Your task to perform on an android device: Open Google Maps Image 0: 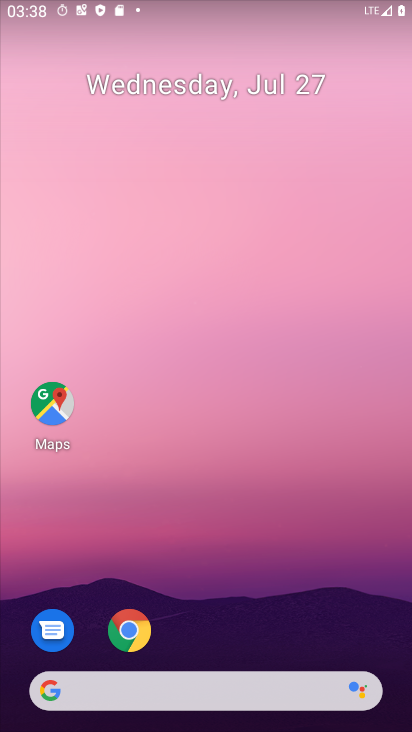
Step 0: drag from (283, 640) to (245, 27)
Your task to perform on an android device: Open Google Maps Image 1: 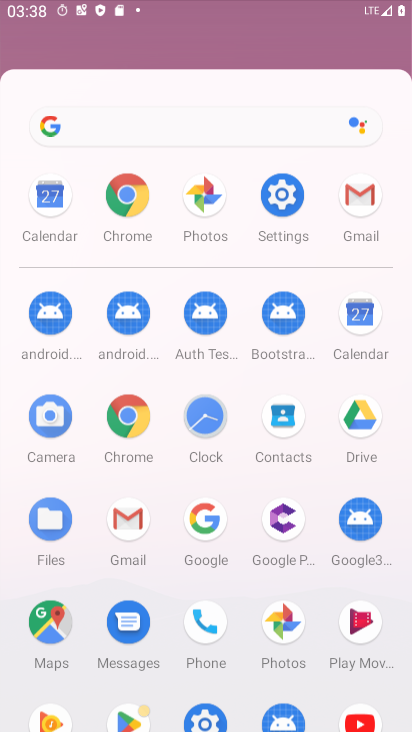
Step 1: drag from (244, 475) to (200, 93)
Your task to perform on an android device: Open Google Maps Image 2: 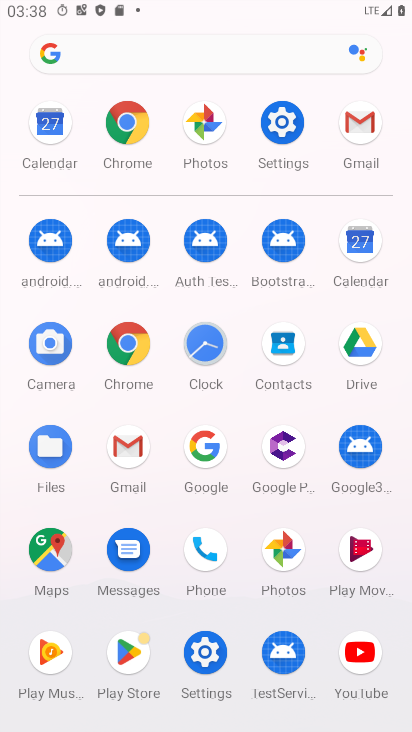
Step 2: drag from (231, 460) to (220, 127)
Your task to perform on an android device: Open Google Maps Image 3: 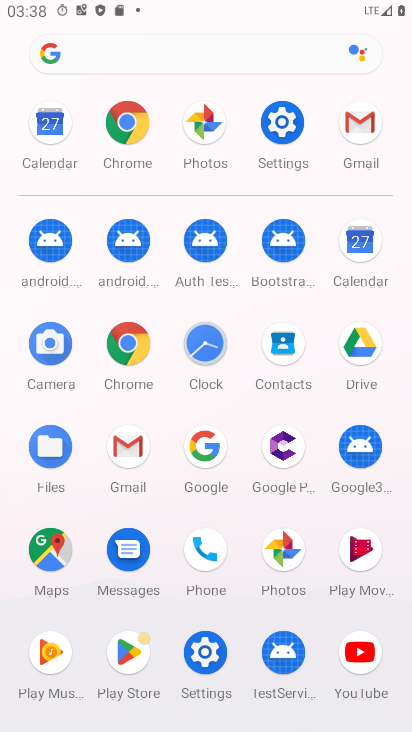
Step 3: click (202, 451)
Your task to perform on an android device: Open Google Maps Image 4: 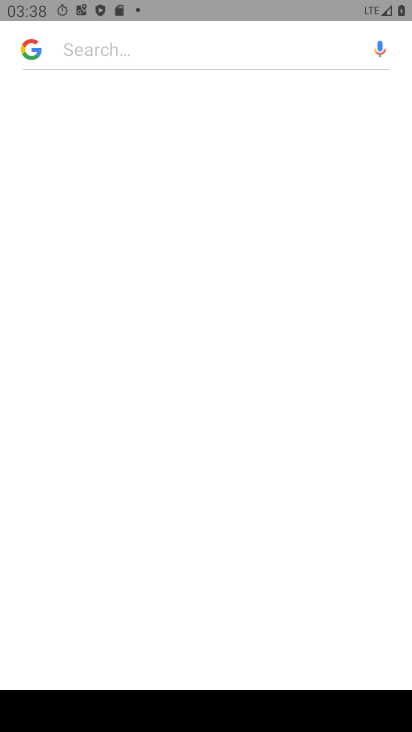
Step 4: click (43, 547)
Your task to perform on an android device: Open Google Maps Image 5: 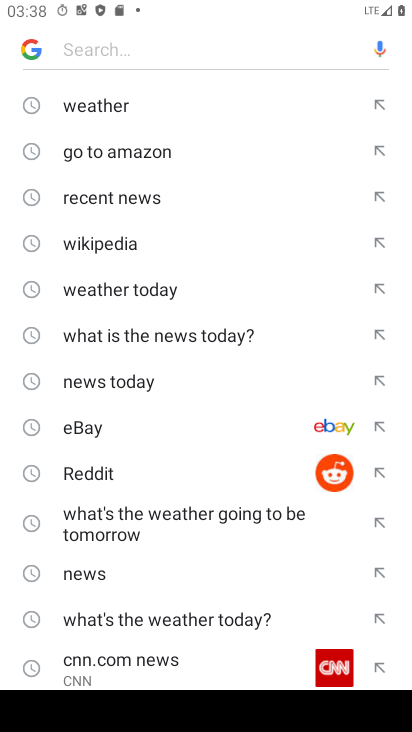
Step 5: press back button
Your task to perform on an android device: Open Google Maps Image 6: 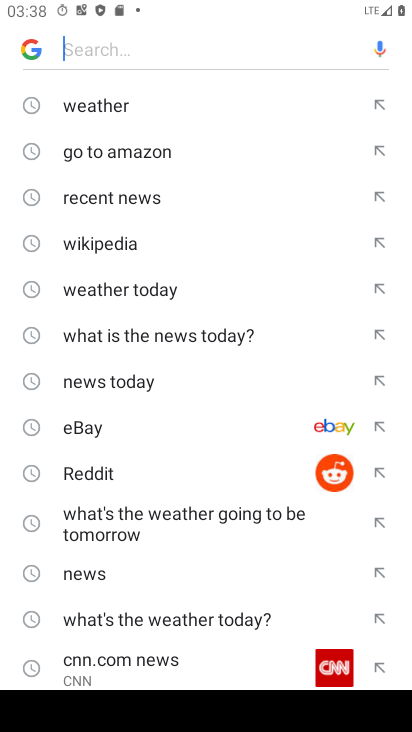
Step 6: press back button
Your task to perform on an android device: Open Google Maps Image 7: 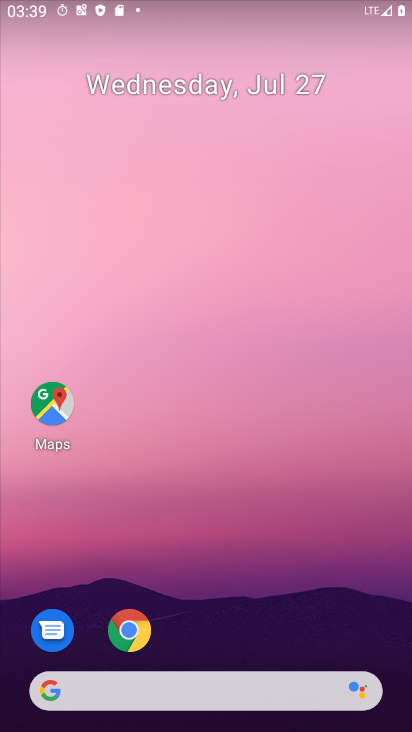
Step 7: drag from (247, 614) to (240, 11)
Your task to perform on an android device: Open Google Maps Image 8: 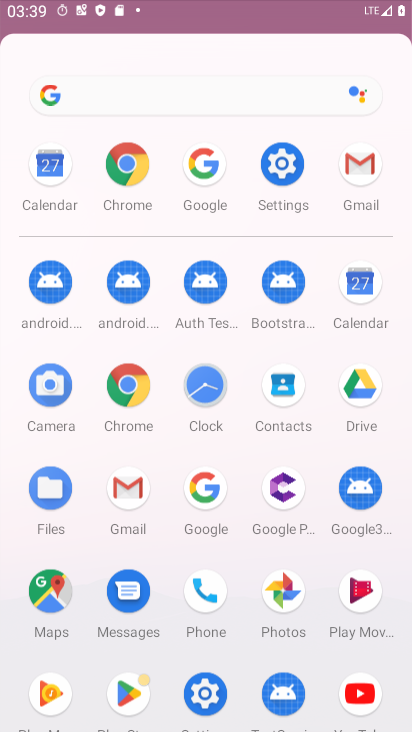
Step 8: drag from (275, 353) to (221, 64)
Your task to perform on an android device: Open Google Maps Image 9: 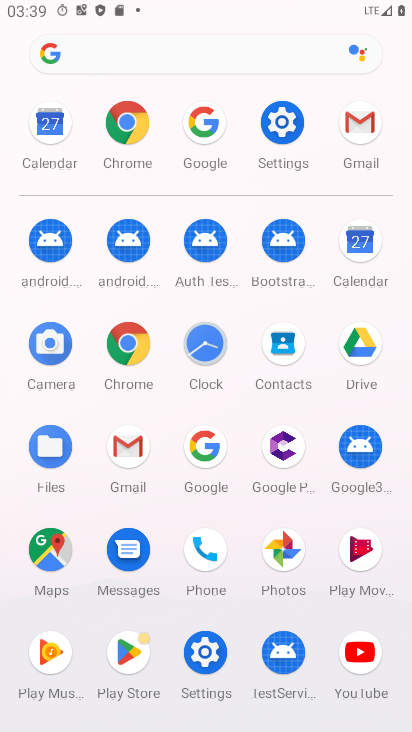
Step 9: click (56, 542)
Your task to perform on an android device: Open Google Maps Image 10: 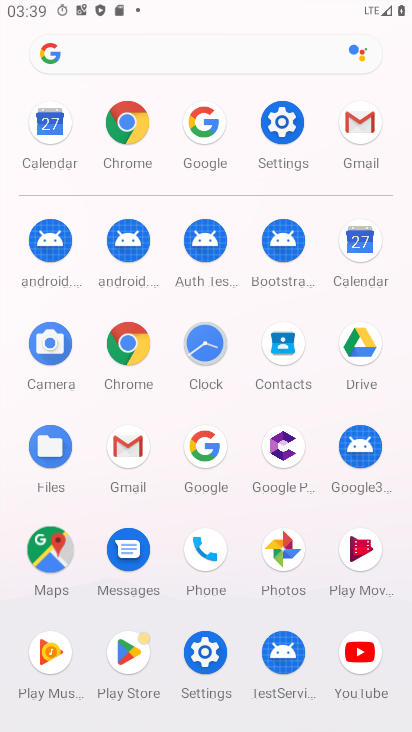
Step 10: click (56, 542)
Your task to perform on an android device: Open Google Maps Image 11: 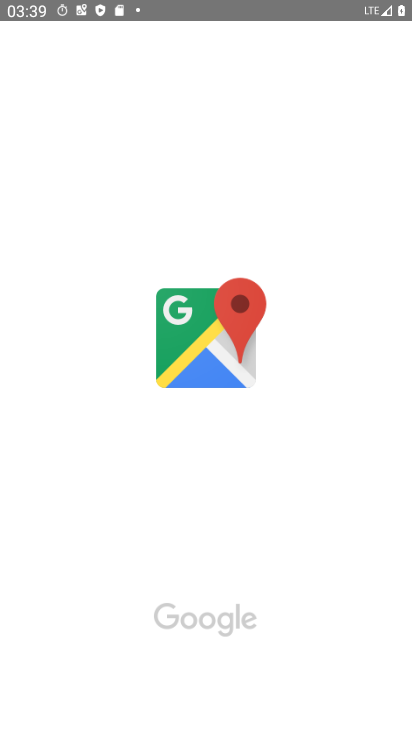
Step 11: click (196, 344)
Your task to perform on an android device: Open Google Maps Image 12: 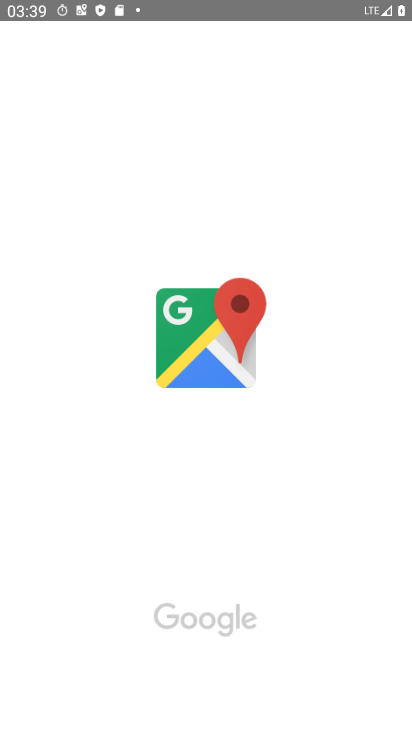
Step 12: click (196, 344)
Your task to perform on an android device: Open Google Maps Image 13: 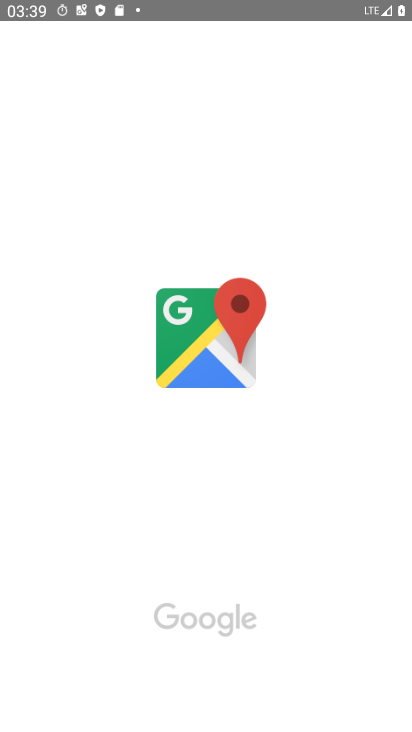
Step 13: click (196, 344)
Your task to perform on an android device: Open Google Maps Image 14: 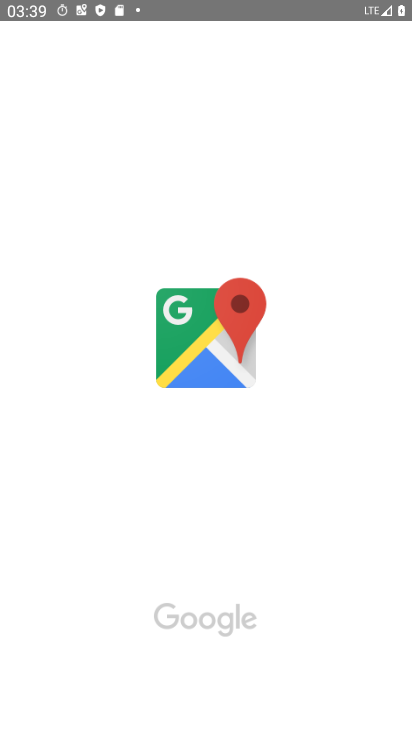
Step 14: click (198, 345)
Your task to perform on an android device: Open Google Maps Image 15: 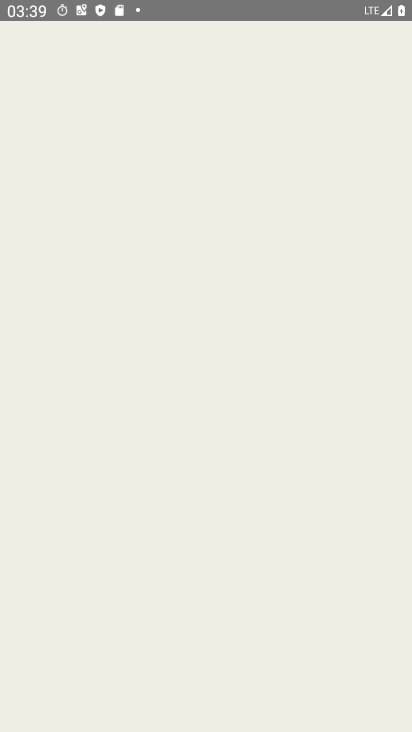
Step 15: task complete